Your task to perform on an android device: turn pop-ups off in chrome Image 0: 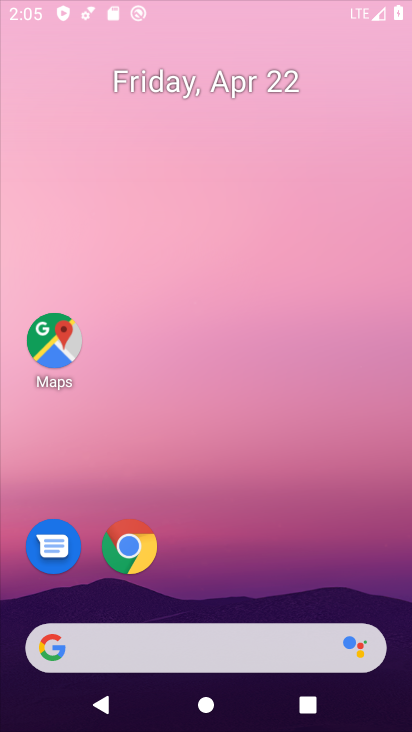
Step 0: click (290, 135)
Your task to perform on an android device: turn pop-ups off in chrome Image 1: 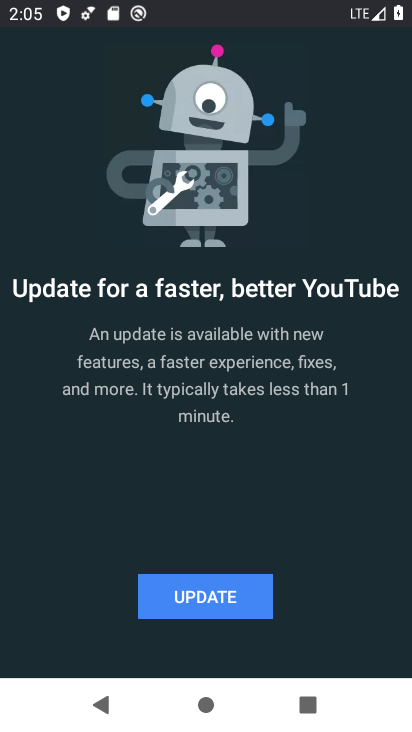
Step 1: press home button
Your task to perform on an android device: turn pop-ups off in chrome Image 2: 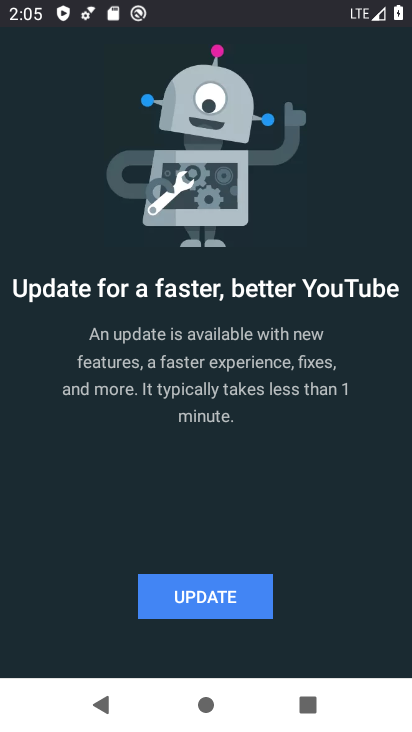
Step 2: press home button
Your task to perform on an android device: turn pop-ups off in chrome Image 3: 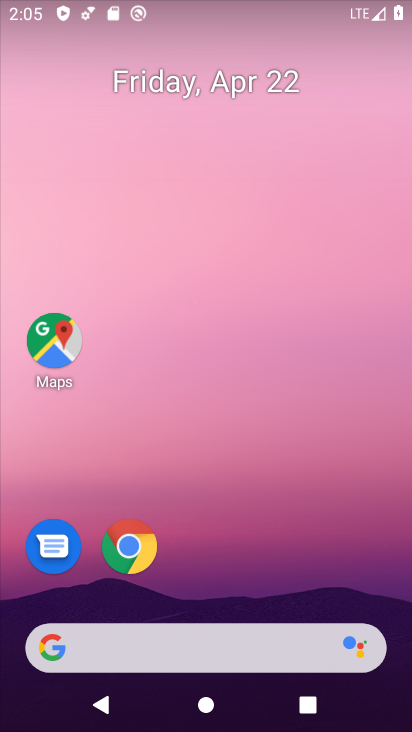
Step 3: drag from (230, 568) to (264, 158)
Your task to perform on an android device: turn pop-ups off in chrome Image 4: 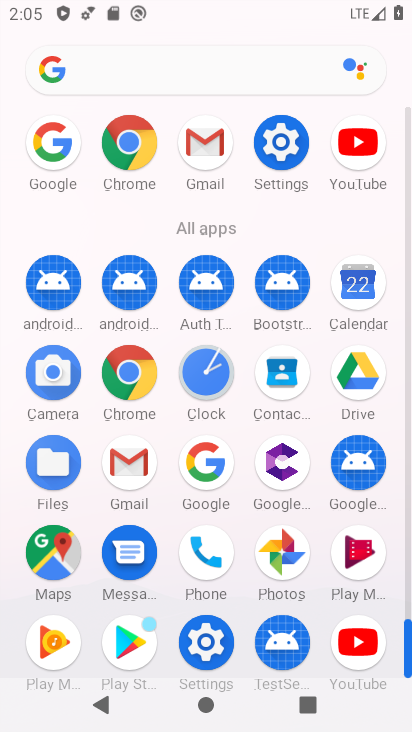
Step 4: click (134, 179)
Your task to perform on an android device: turn pop-ups off in chrome Image 5: 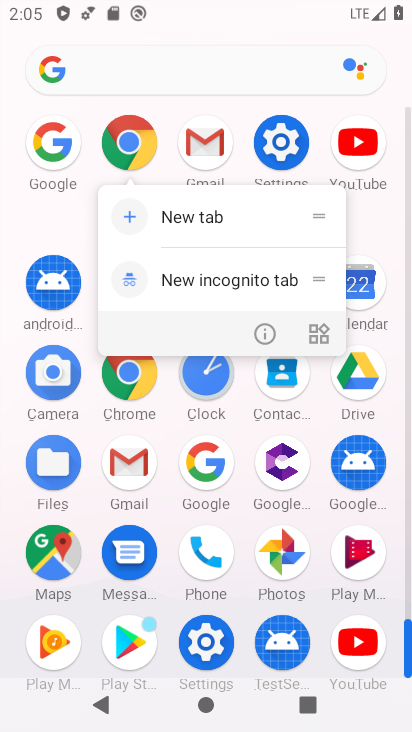
Step 5: click (132, 172)
Your task to perform on an android device: turn pop-ups off in chrome Image 6: 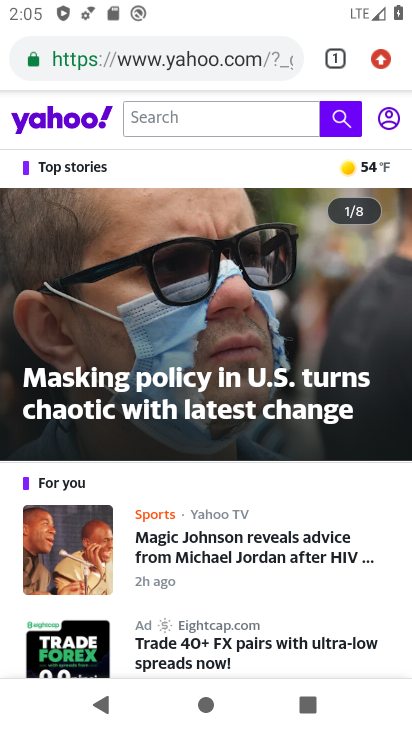
Step 6: press home button
Your task to perform on an android device: turn pop-ups off in chrome Image 7: 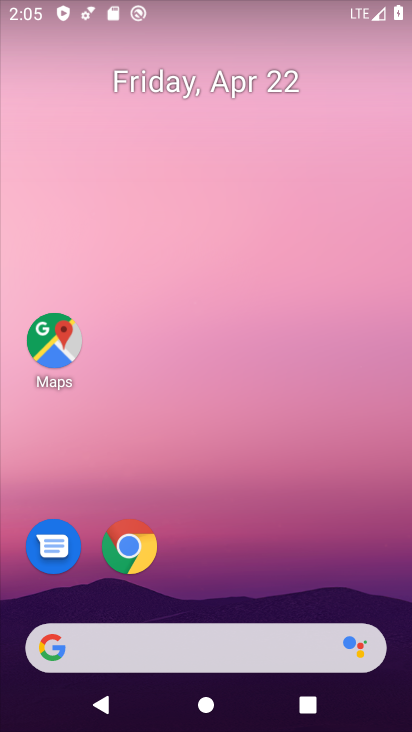
Step 7: drag from (247, 583) to (285, 240)
Your task to perform on an android device: turn pop-ups off in chrome Image 8: 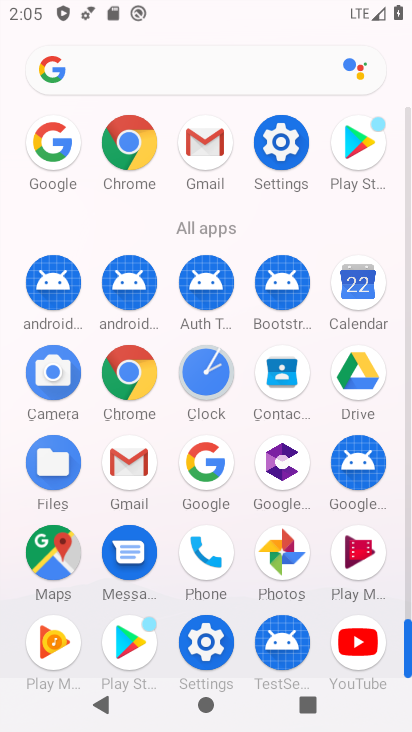
Step 8: click (123, 401)
Your task to perform on an android device: turn pop-ups off in chrome Image 9: 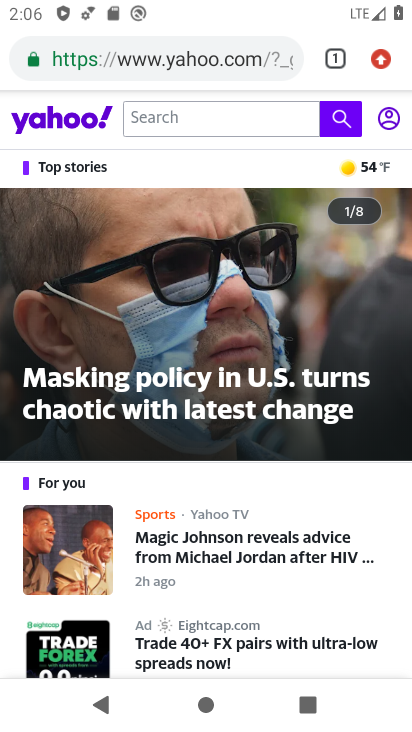
Step 9: click (388, 61)
Your task to perform on an android device: turn pop-ups off in chrome Image 10: 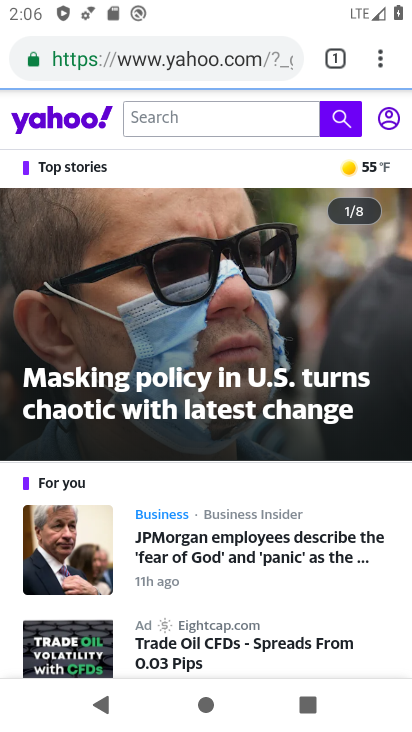
Step 10: click (388, 61)
Your task to perform on an android device: turn pop-ups off in chrome Image 11: 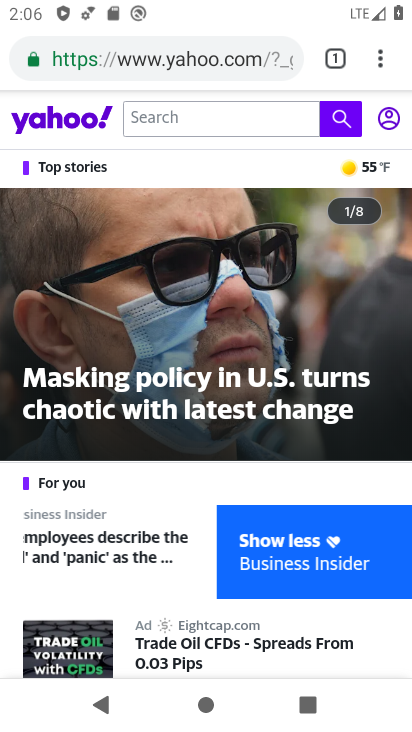
Step 11: click (377, 66)
Your task to perform on an android device: turn pop-ups off in chrome Image 12: 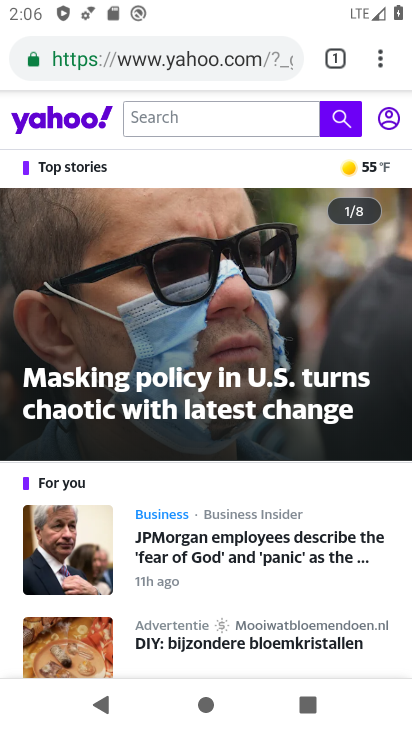
Step 12: task complete